Your task to perform on an android device: choose inbox layout in the gmail app Image 0: 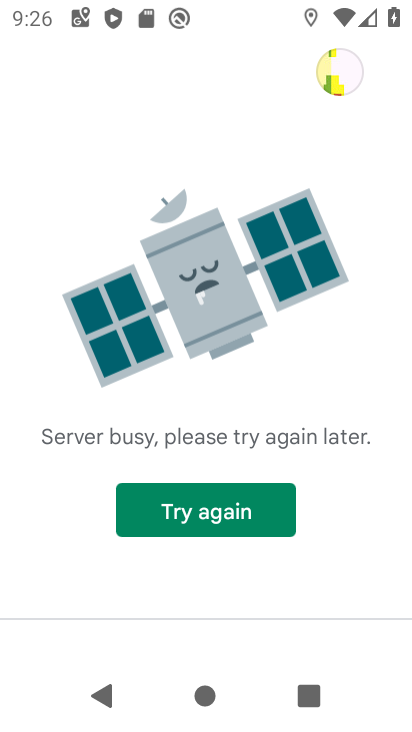
Step 0: press home button
Your task to perform on an android device: choose inbox layout in the gmail app Image 1: 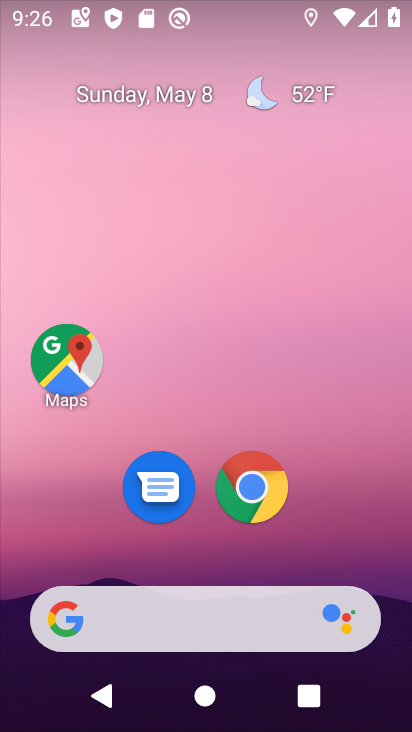
Step 1: drag from (399, 651) to (293, 54)
Your task to perform on an android device: choose inbox layout in the gmail app Image 2: 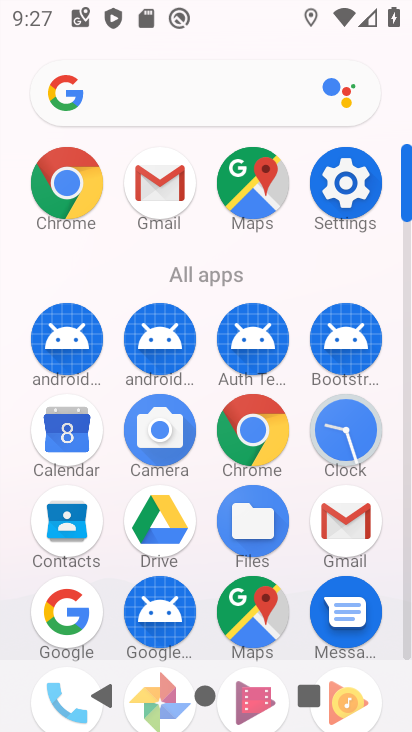
Step 2: click (324, 536)
Your task to perform on an android device: choose inbox layout in the gmail app Image 3: 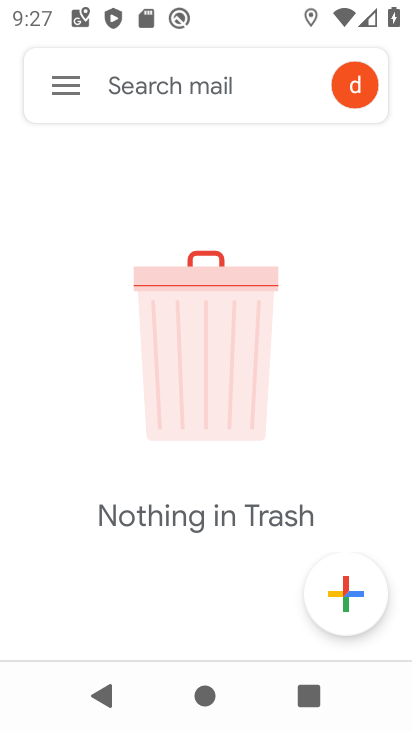
Step 3: click (50, 99)
Your task to perform on an android device: choose inbox layout in the gmail app Image 4: 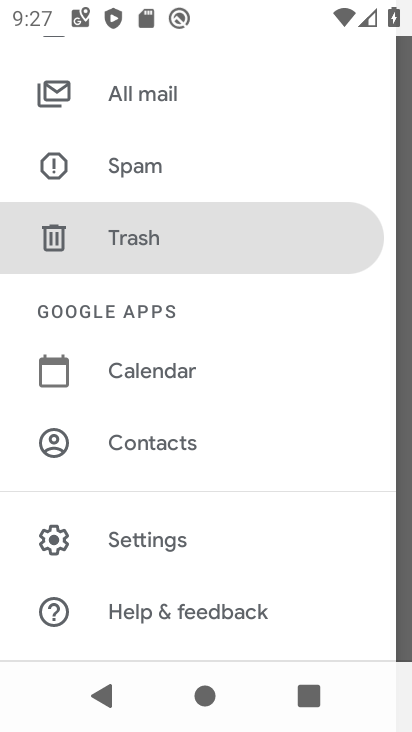
Step 4: click (101, 700)
Your task to perform on an android device: choose inbox layout in the gmail app Image 5: 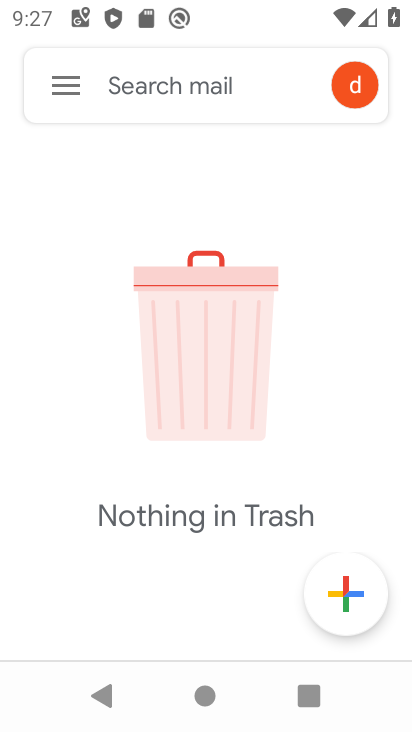
Step 5: task complete